Your task to perform on an android device: turn on improve location accuracy Image 0: 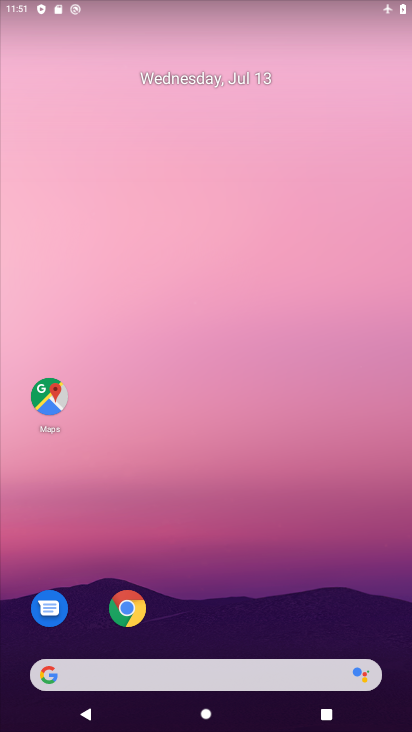
Step 0: drag from (53, 487) to (239, 133)
Your task to perform on an android device: turn on improve location accuracy Image 1: 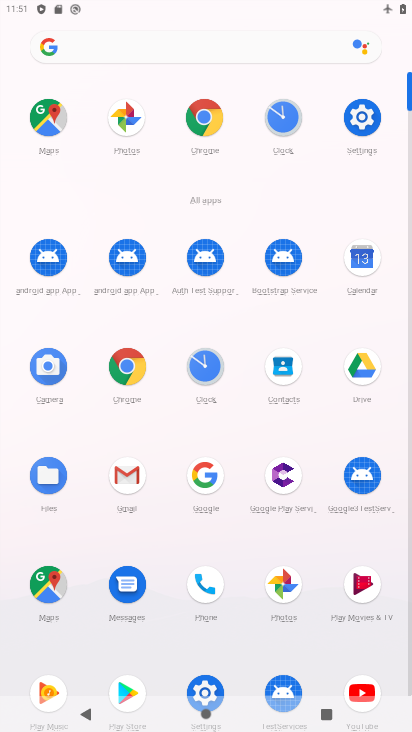
Step 1: click (346, 128)
Your task to perform on an android device: turn on improve location accuracy Image 2: 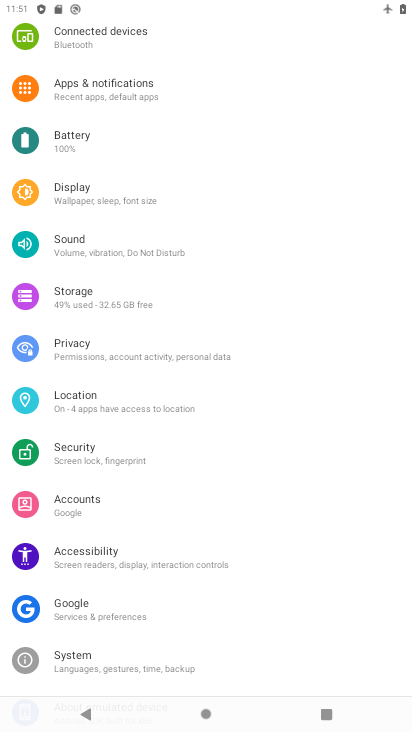
Step 2: click (102, 401)
Your task to perform on an android device: turn on improve location accuracy Image 3: 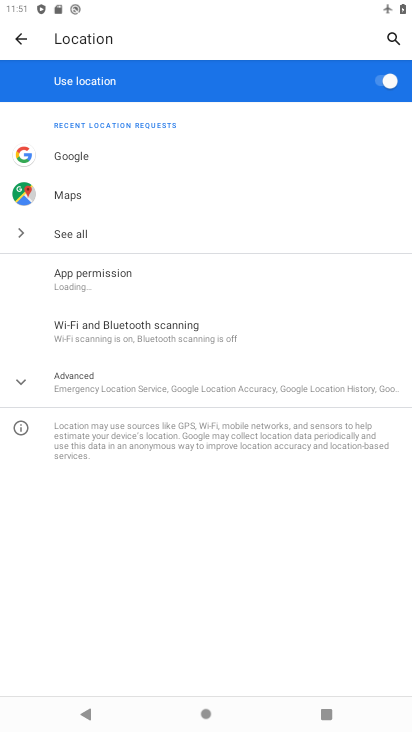
Step 3: click (123, 372)
Your task to perform on an android device: turn on improve location accuracy Image 4: 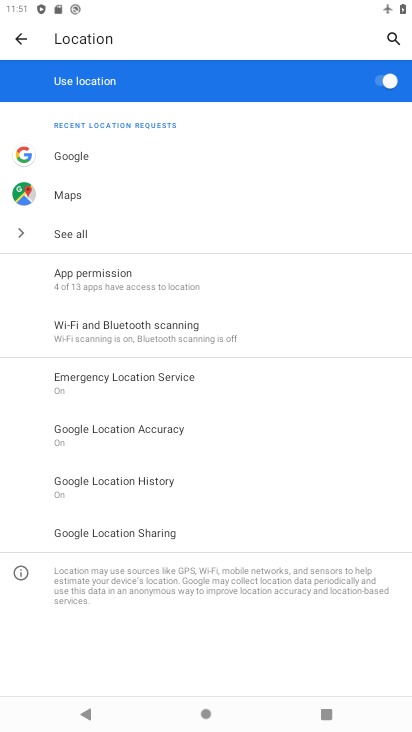
Step 4: click (139, 434)
Your task to perform on an android device: turn on improve location accuracy Image 5: 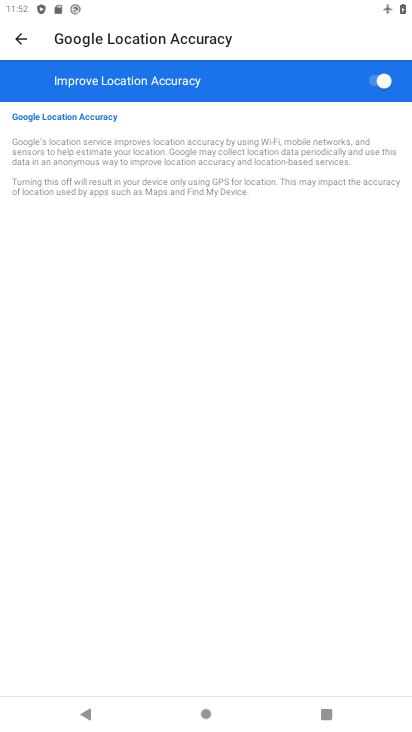
Step 5: task complete